Your task to perform on an android device: read, delete, or share a saved page in the chrome app Image 0: 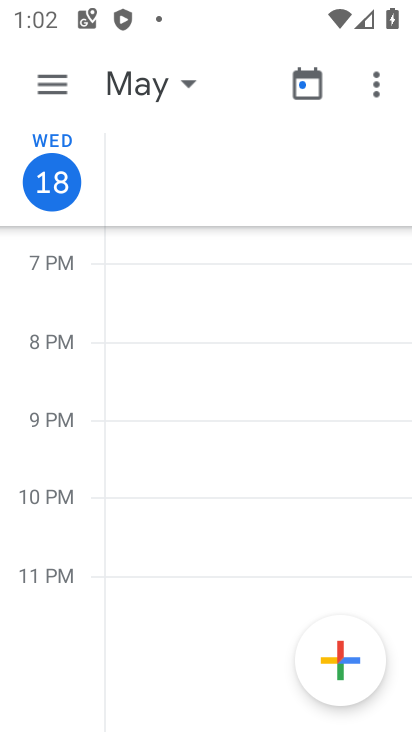
Step 0: press home button
Your task to perform on an android device: read, delete, or share a saved page in the chrome app Image 1: 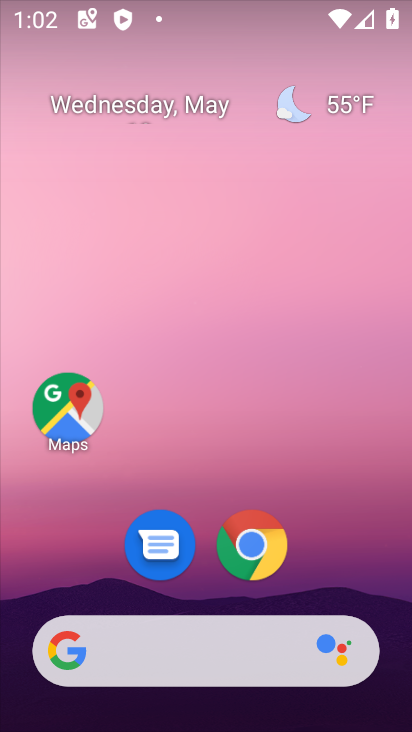
Step 1: click (271, 556)
Your task to perform on an android device: read, delete, or share a saved page in the chrome app Image 2: 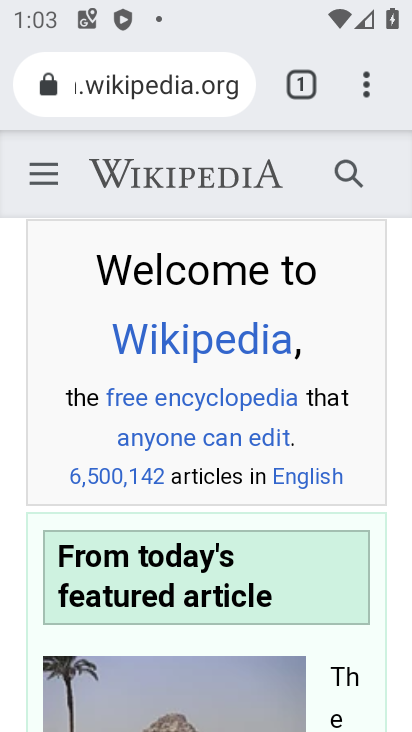
Step 2: click (361, 94)
Your task to perform on an android device: read, delete, or share a saved page in the chrome app Image 3: 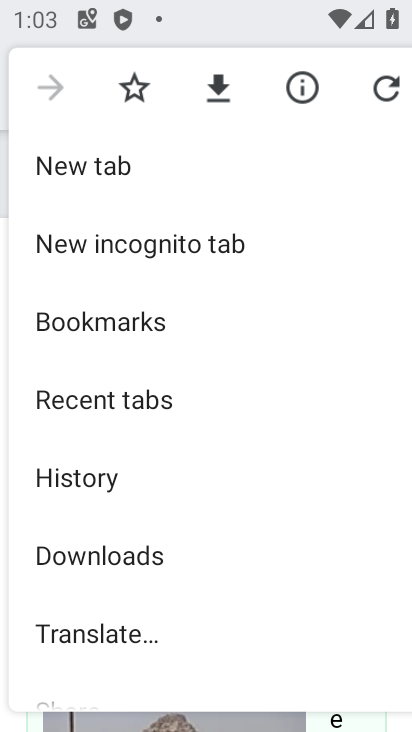
Step 3: click (105, 558)
Your task to perform on an android device: read, delete, or share a saved page in the chrome app Image 4: 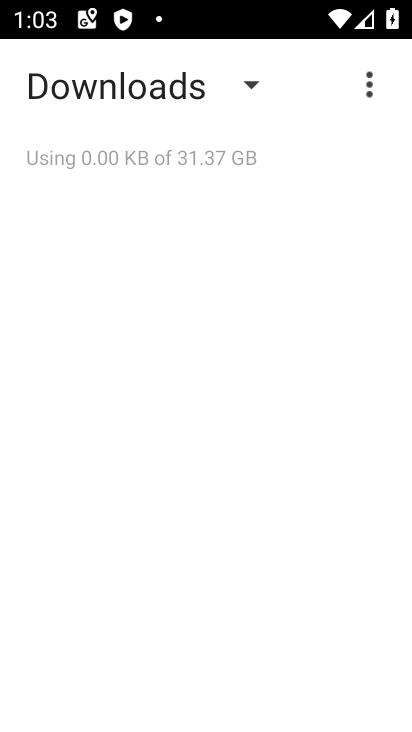
Step 4: task complete